Your task to perform on an android device: turn on location history Image 0: 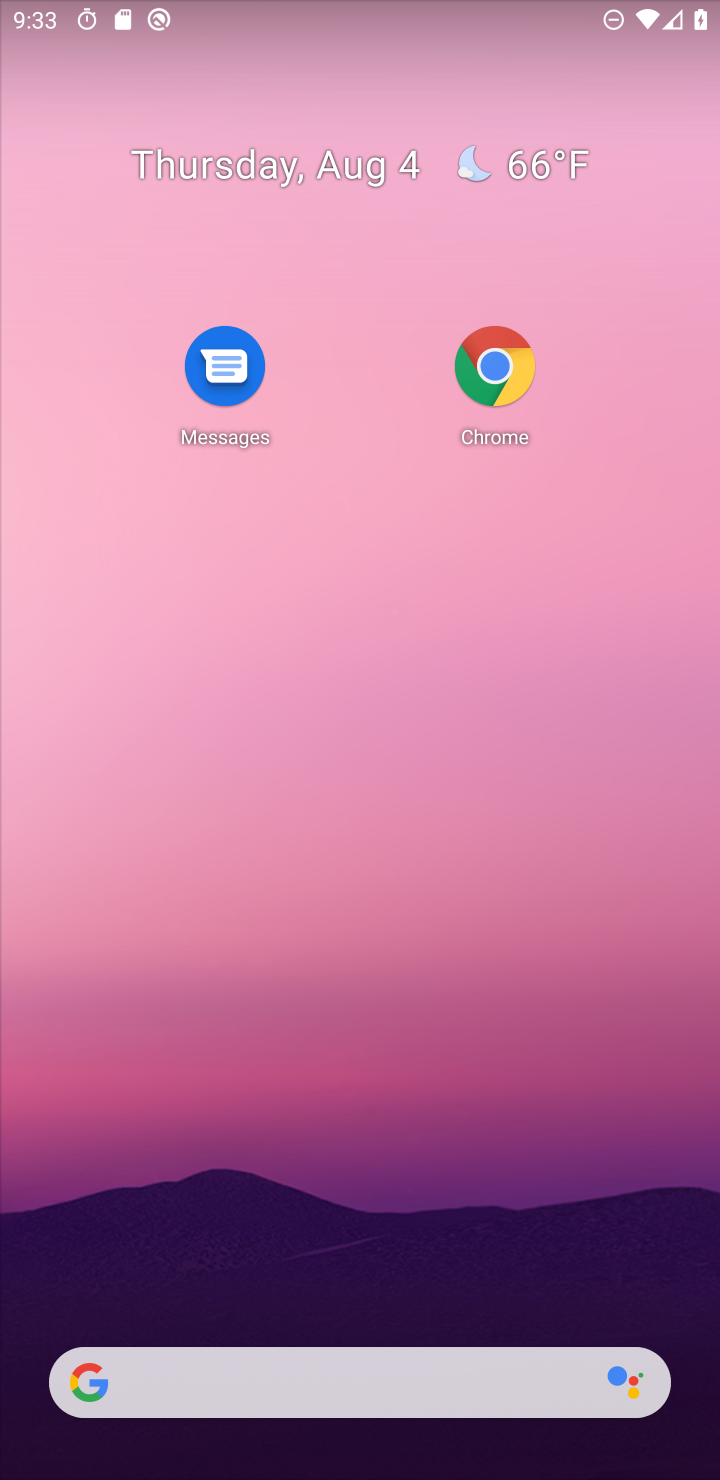
Step 0: drag from (380, 1446) to (457, 243)
Your task to perform on an android device: turn on location history Image 1: 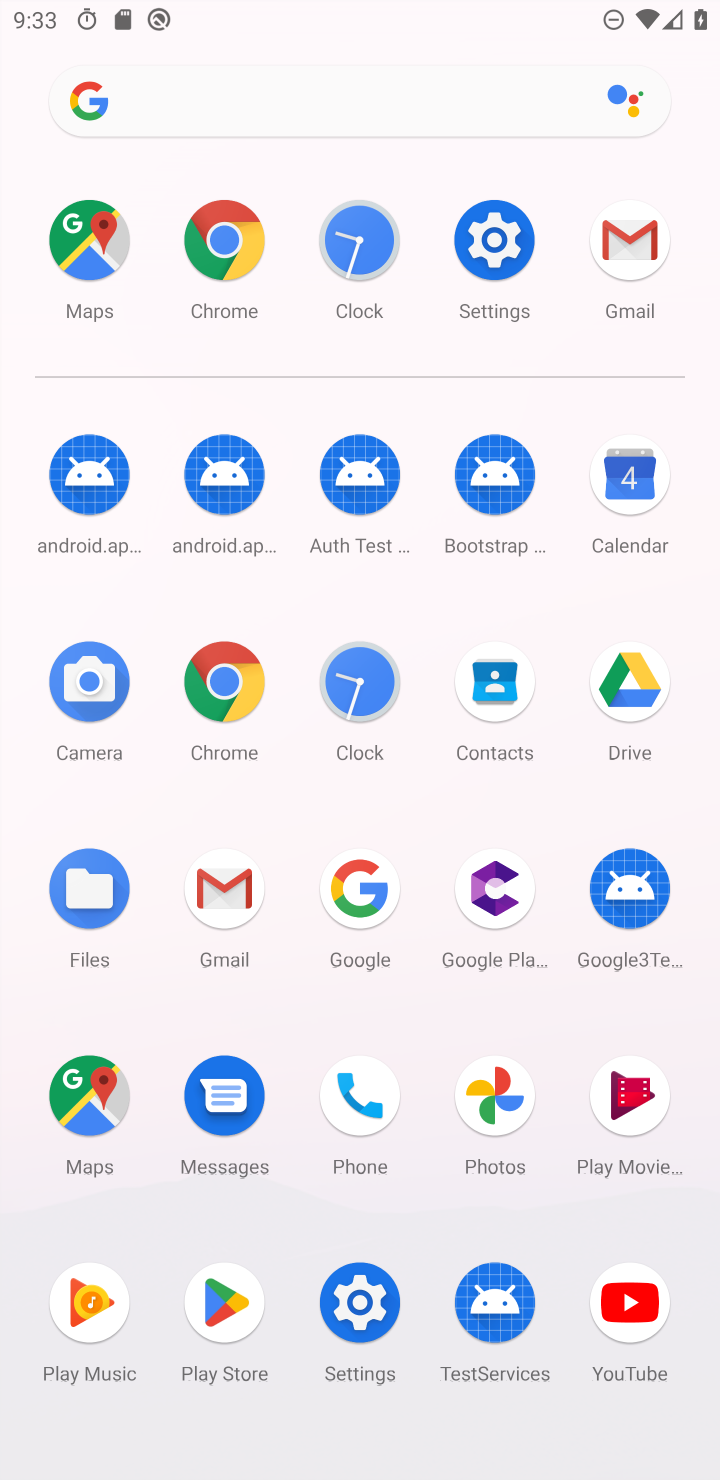
Step 1: click (460, 237)
Your task to perform on an android device: turn on location history Image 2: 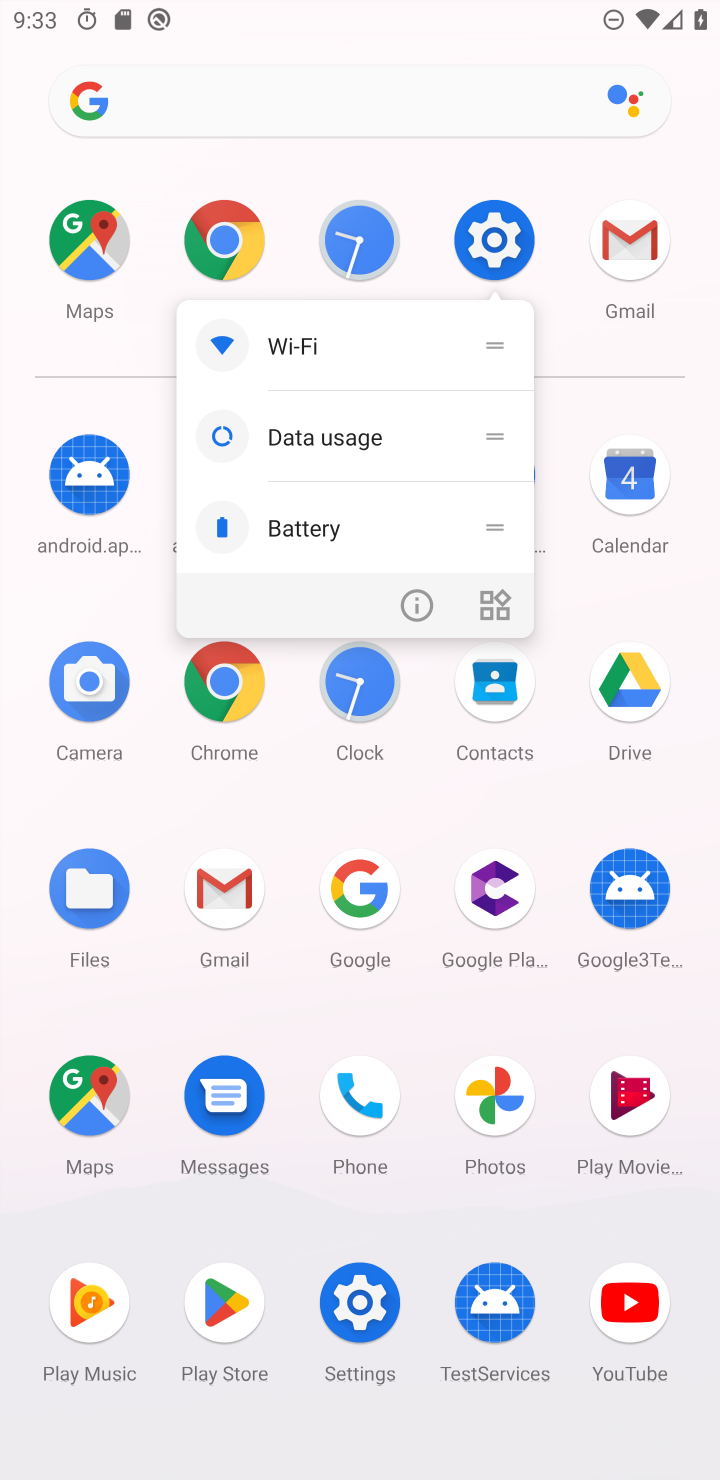
Step 2: click (481, 240)
Your task to perform on an android device: turn on location history Image 3: 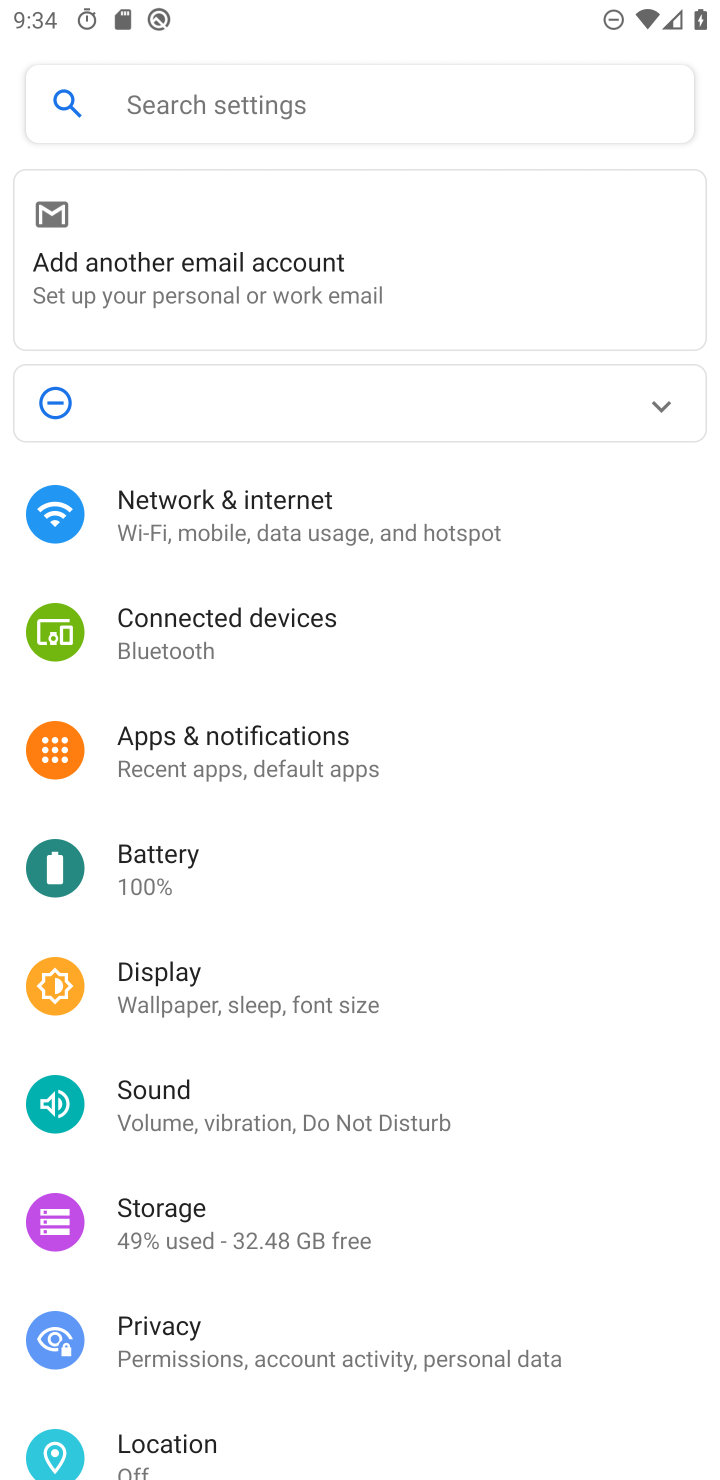
Step 3: click (208, 1439)
Your task to perform on an android device: turn on location history Image 4: 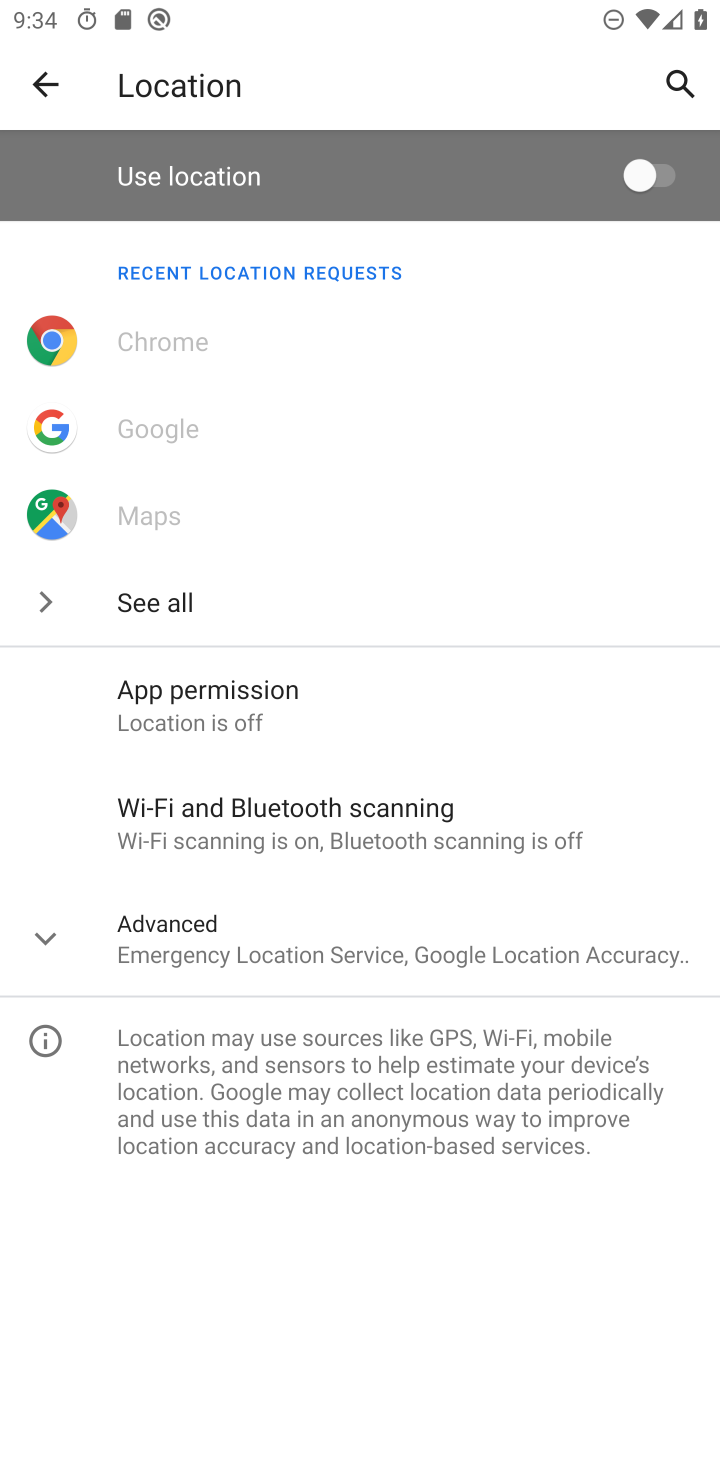
Step 4: click (83, 953)
Your task to perform on an android device: turn on location history Image 5: 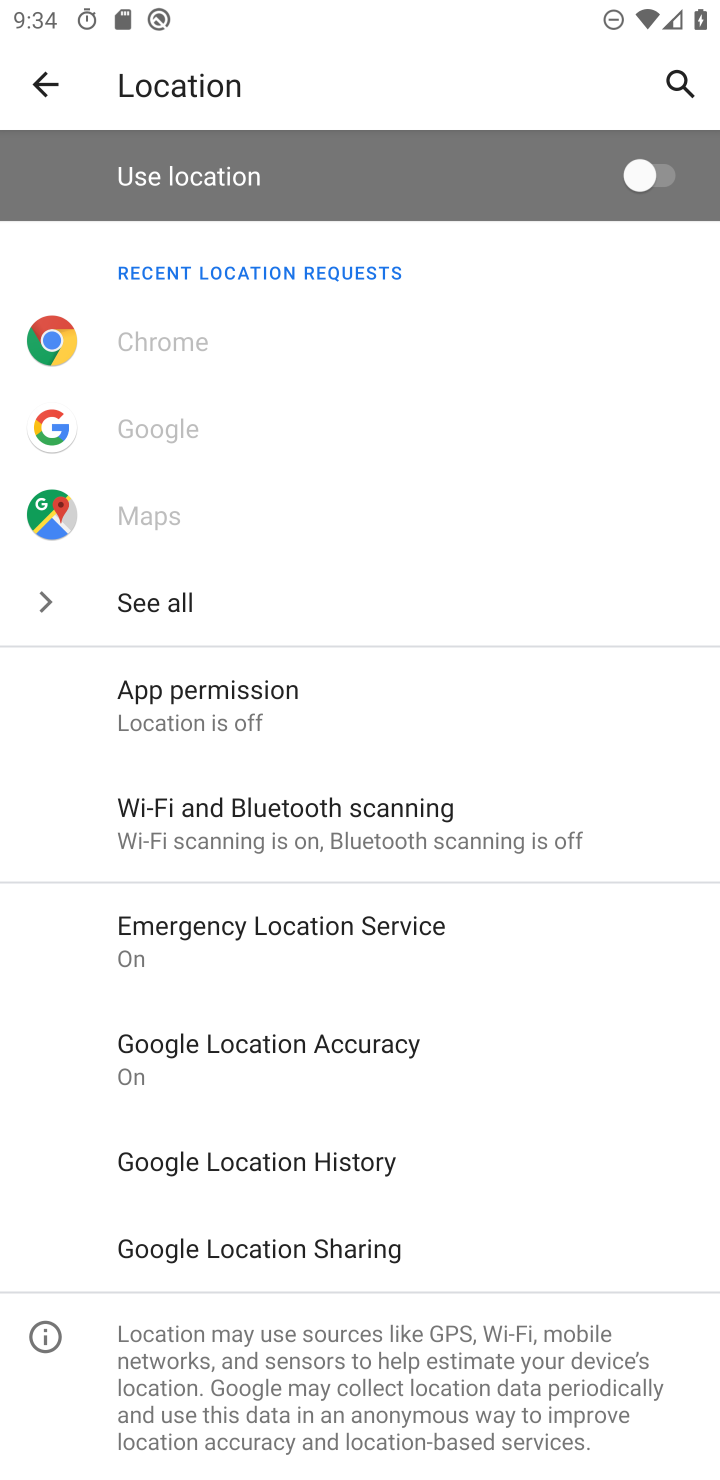
Step 5: click (330, 1160)
Your task to perform on an android device: turn on location history Image 6: 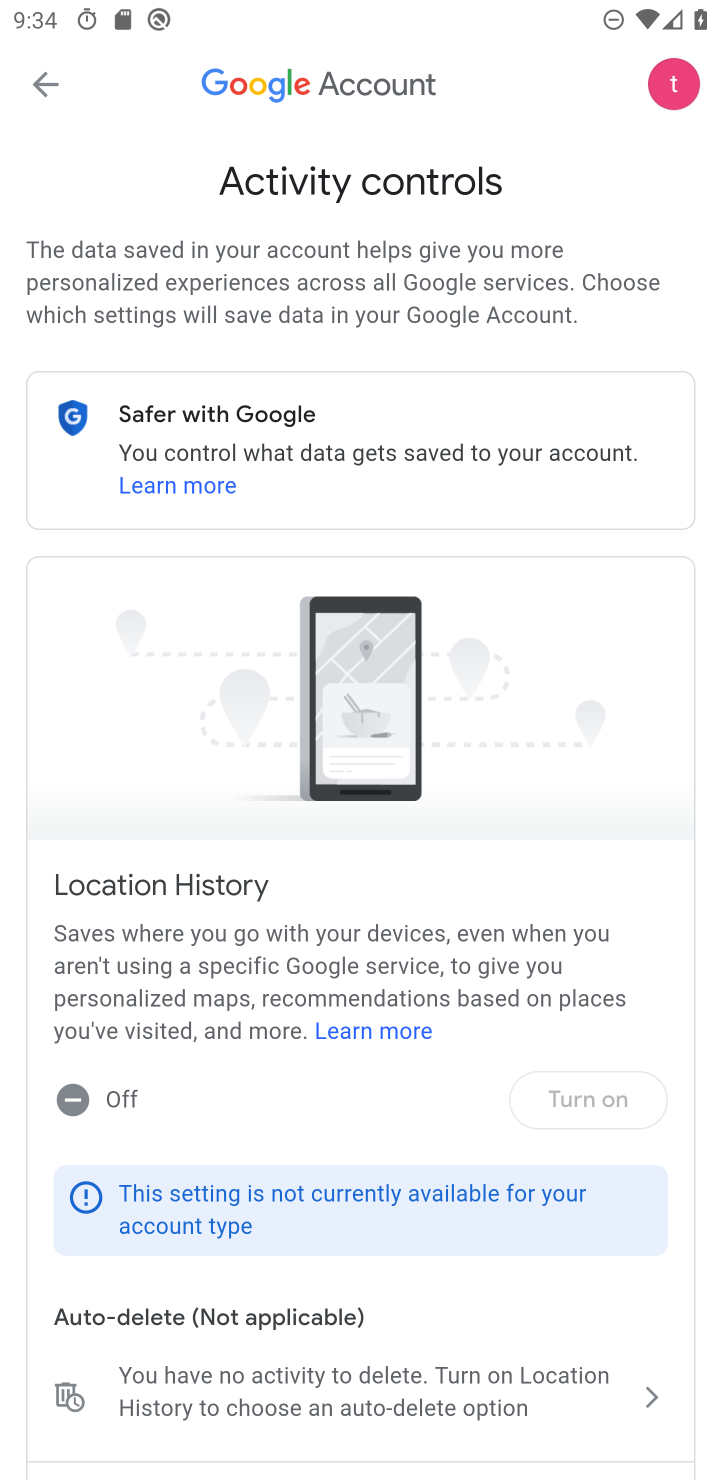
Step 6: task complete